Your task to perform on an android device: delete a single message in the gmail app Image 0: 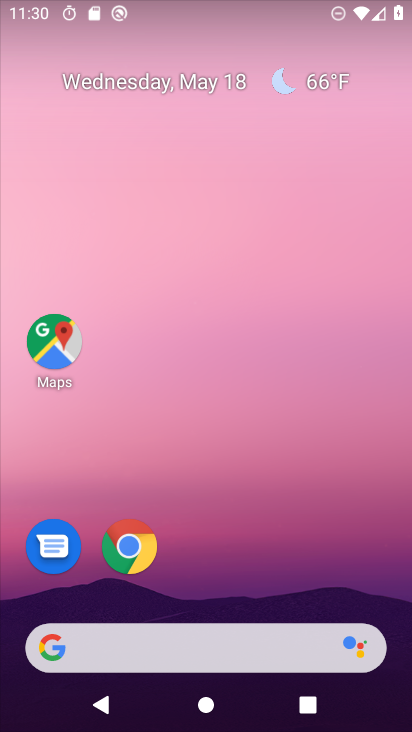
Step 0: drag from (233, 605) to (10, 485)
Your task to perform on an android device: delete a single message in the gmail app Image 1: 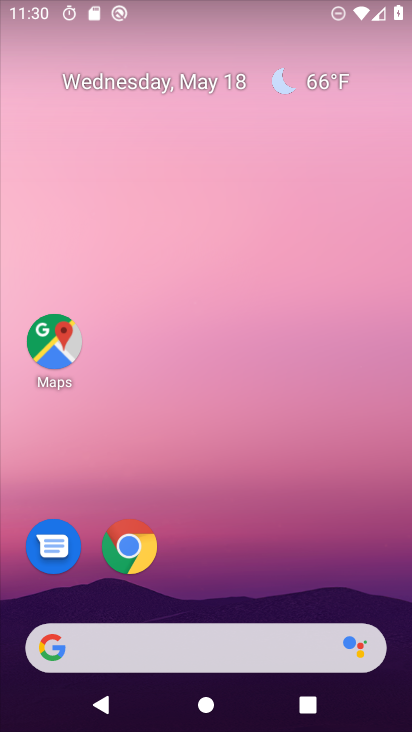
Step 1: click (127, 435)
Your task to perform on an android device: delete a single message in the gmail app Image 2: 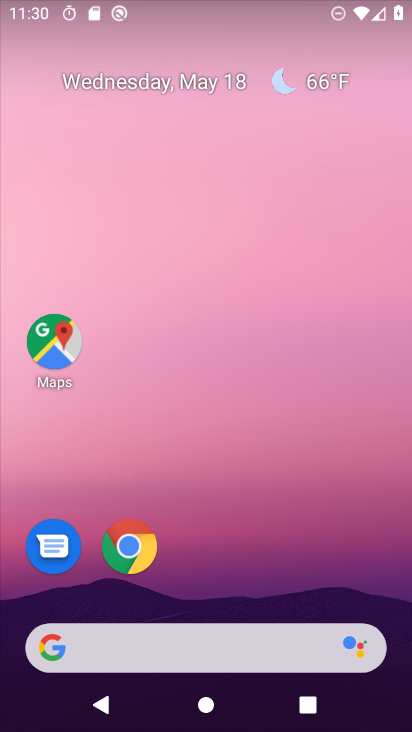
Step 2: drag from (230, 583) to (236, 70)
Your task to perform on an android device: delete a single message in the gmail app Image 3: 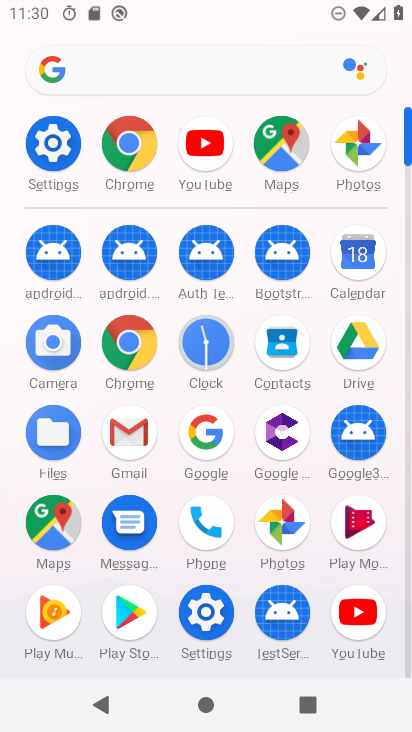
Step 3: click (112, 428)
Your task to perform on an android device: delete a single message in the gmail app Image 4: 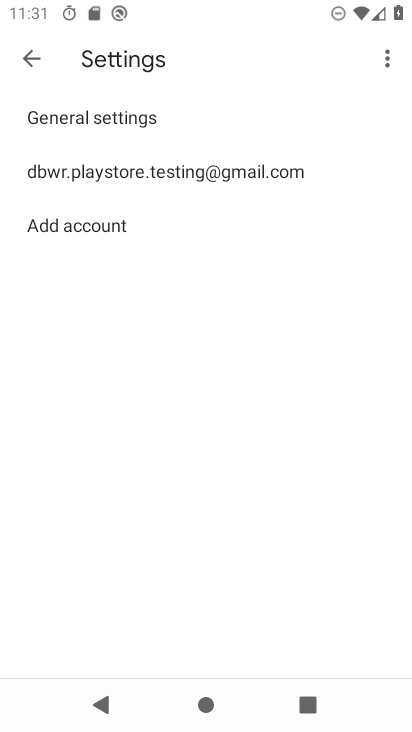
Step 4: click (12, 50)
Your task to perform on an android device: delete a single message in the gmail app Image 5: 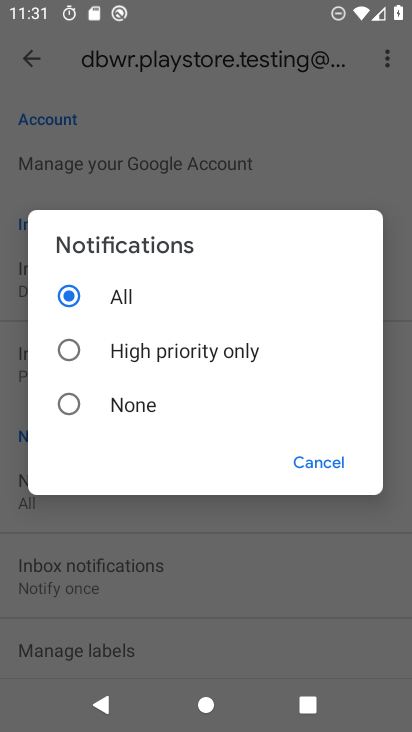
Step 5: click (307, 479)
Your task to perform on an android device: delete a single message in the gmail app Image 6: 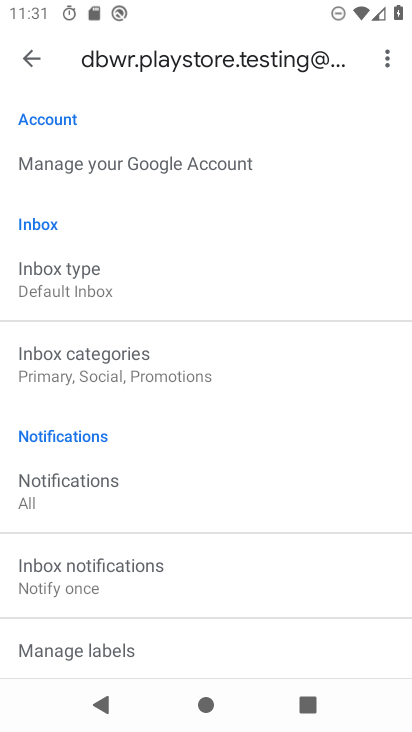
Step 6: click (35, 66)
Your task to perform on an android device: delete a single message in the gmail app Image 7: 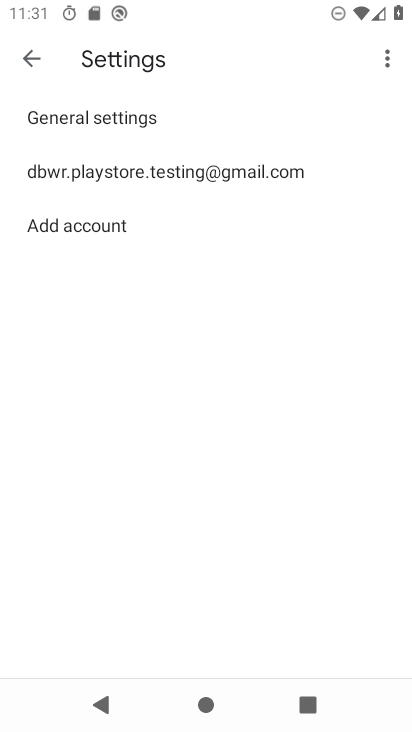
Step 7: click (35, 66)
Your task to perform on an android device: delete a single message in the gmail app Image 8: 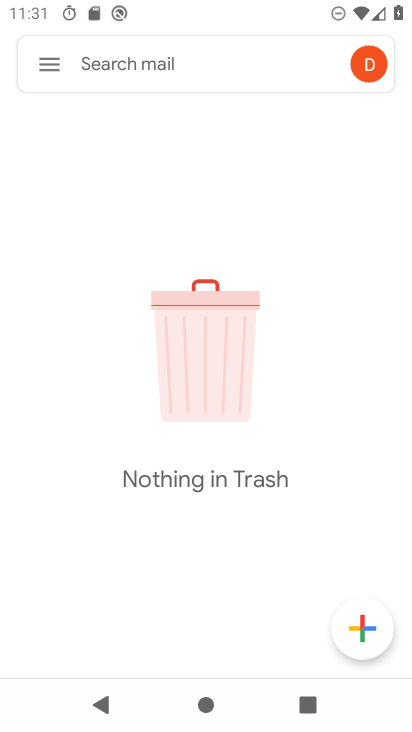
Step 8: click (35, 66)
Your task to perform on an android device: delete a single message in the gmail app Image 9: 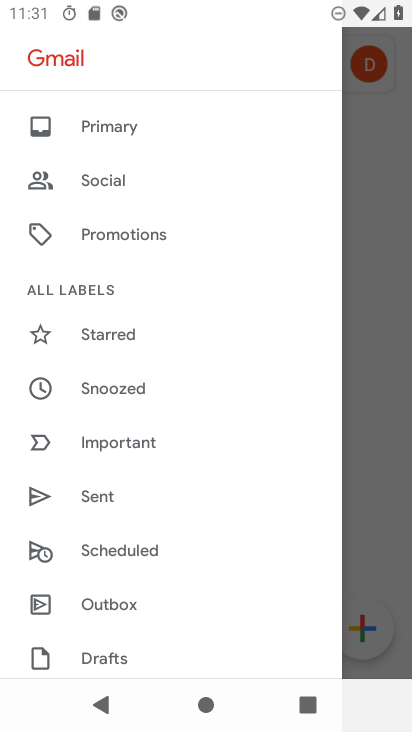
Step 9: drag from (68, 612) to (113, 279)
Your task to perform on an android device: delete a single message in the gmail app Image 10: 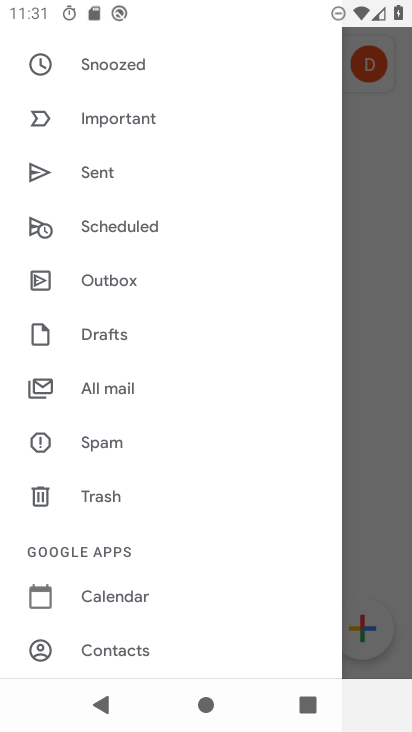
Step 10: click (85, 385)
Your task to perform on an android device: delete a single message in the gmail app Image 11: 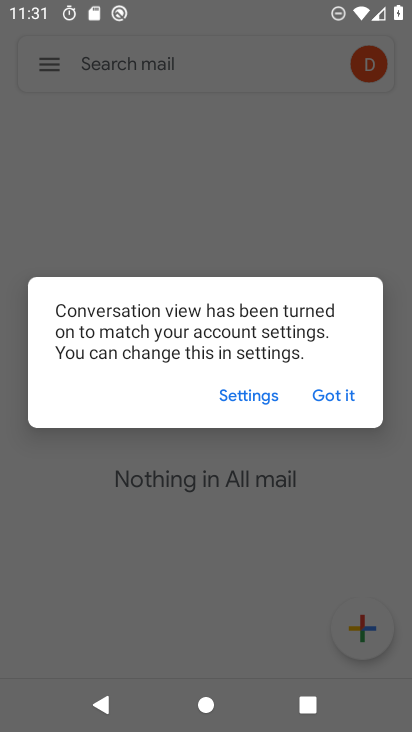
Step 11: click (345, 389)
Your task to perform on an android device: delete a single message in the gmail app Image 12: 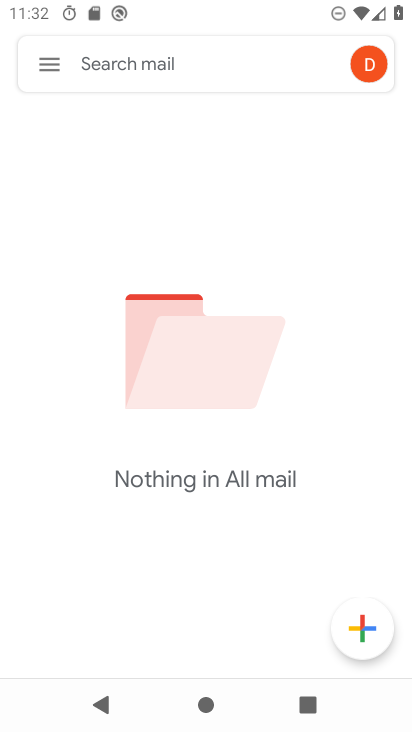
Step 12: task complete